Your task to perform on an android device: turn on the 12-hour format for clock Image 0: 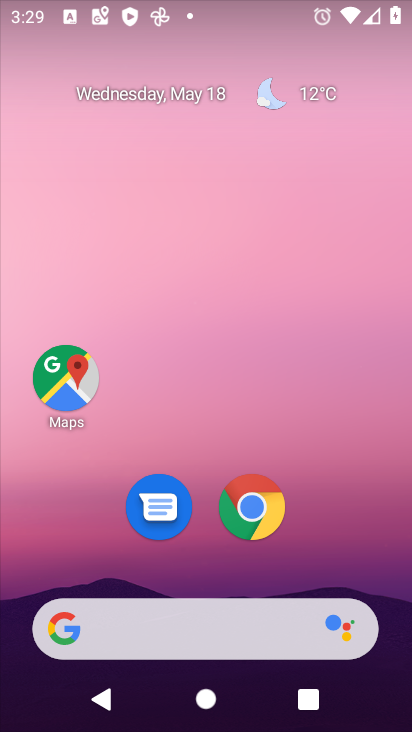
Step 0: drag from (396, 627) to (307, 141)
Your task to perform on an android device: turn on the 12-hour format for clock Image 1: 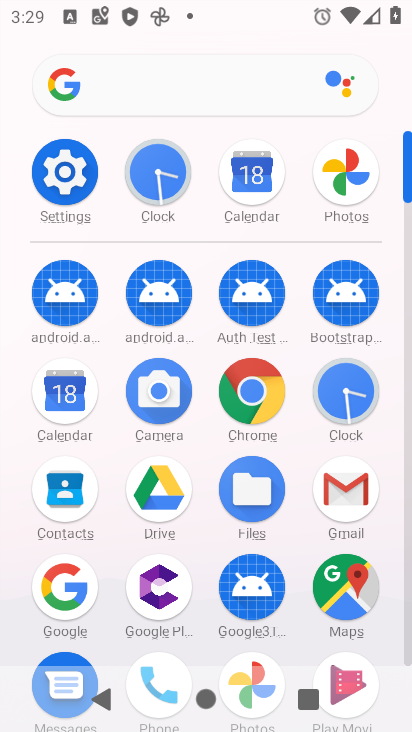
Step 1: click (406, 652)
Your task to perform on an android device: turn on the 12-hour format for clock Image 2: 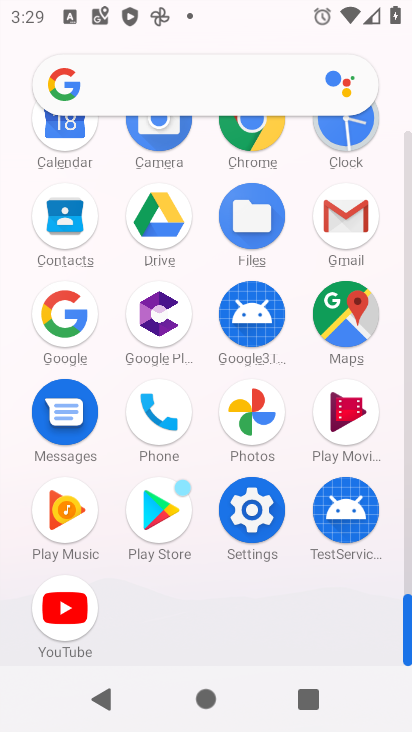
Step 2: click (342, 134)
Your task to perform on an android device: turn on the 12-hour format for clock Image 3: 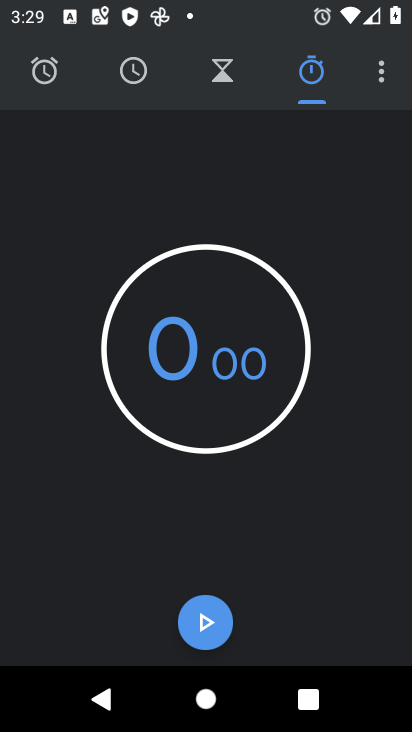
Step 3: click (383, 74)
Your task to perform on an android device: turn on the 12-hour format for clock Image 4: 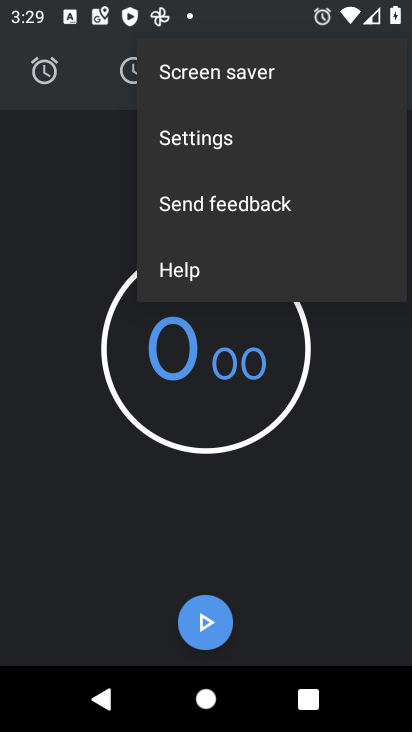
Step 4: click (194, 135)
Your task to perform on an android device: turn on the 12-hour format for clock Image 5: 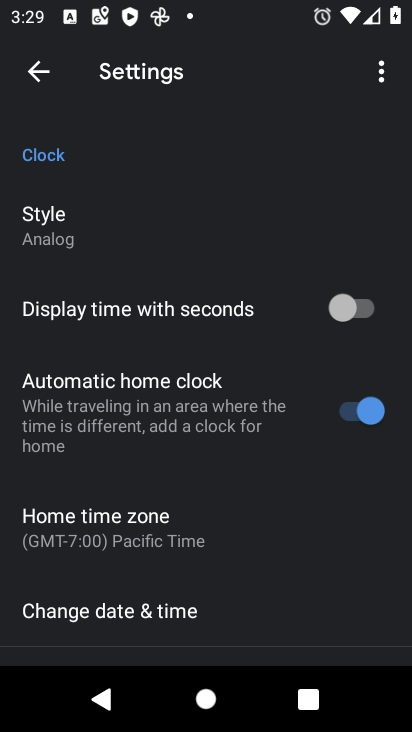
Step 5: click (191, 610)
Your task to perform on an android device: turn on the 12-hour format for clock Image 6: 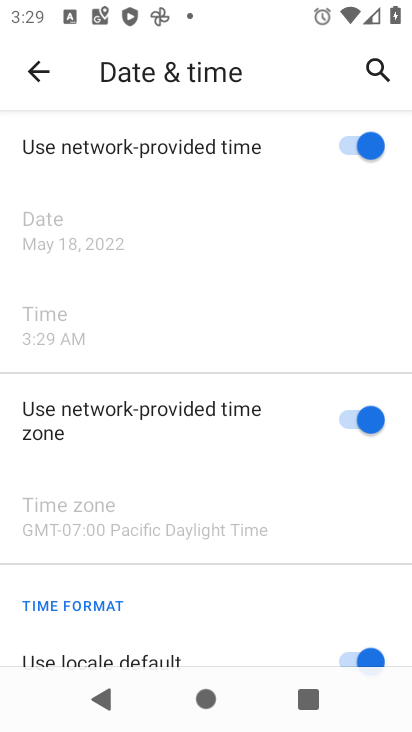
Step 6: task complete